Your task to perform on an android device: search for starred emails in the gmail app Image 0: 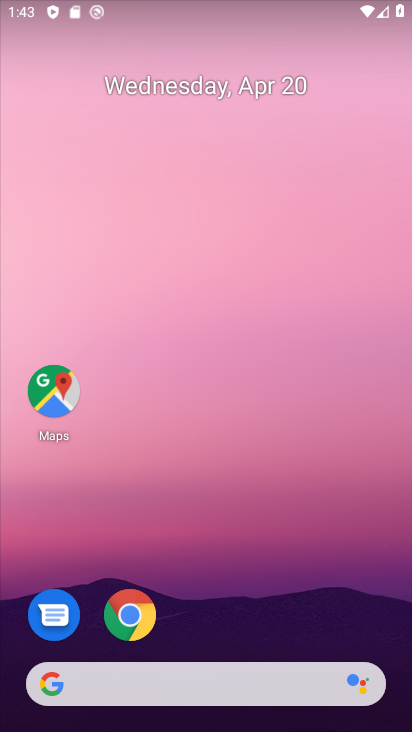
Step 0: drag from (230, 624) to (169, 62)
Your task to perform on an android device: search for starred emails in the gmail app Image 1: 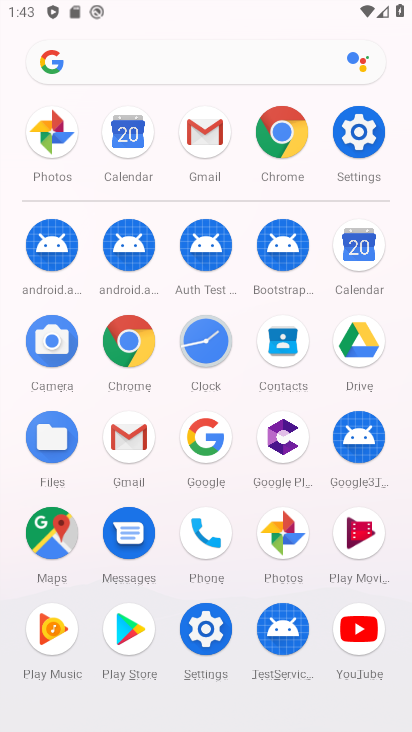
Step 1: click (199, 153)
Your task to perform on an android device: search for starred emails in the gmail app Image 2: 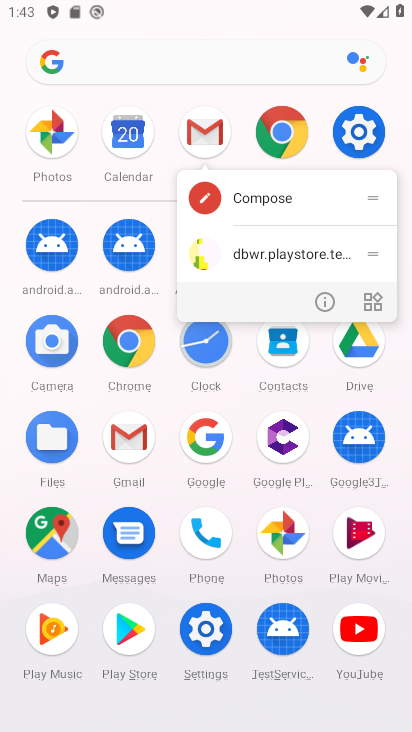
Step 2: click (199, 146)
Your task to perform on an android device: search for starred emails in the gmail app Image 3: 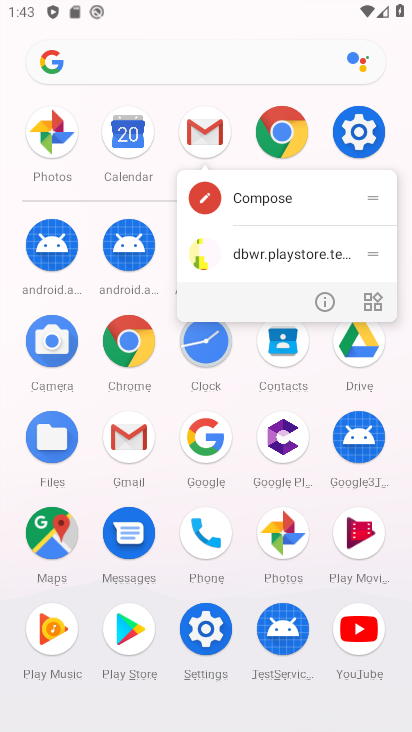
Step 3: click (199, 146)
Your task to perform on an android device: search for starred emails in the gmail app Image 4: 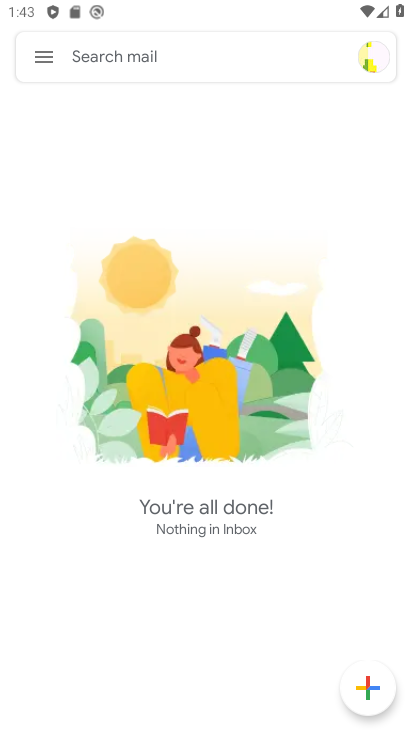
Step 4: click (39, 60)
Your task to perform on an android device: search for starred emails in the gmail app Image 5: 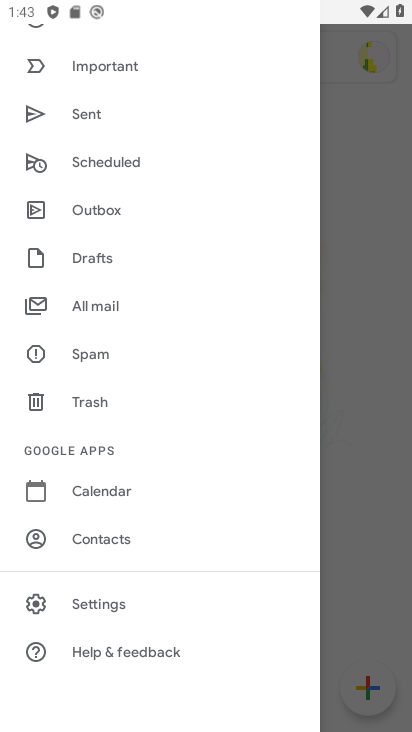
Step 5: drag from (81, 142) to (75, 282)
Your task to perform on an android device: search for starred emails in the gmail app Image 6: 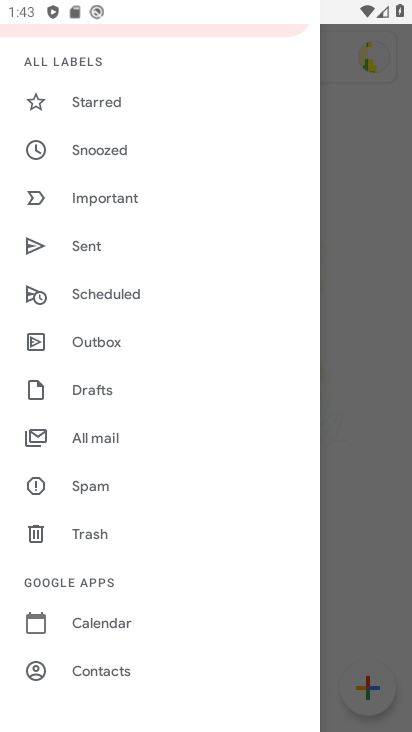
Step 6: click (84, 110)
Your task to perform on an android device: search for starred emails in the gmail app Image 7: 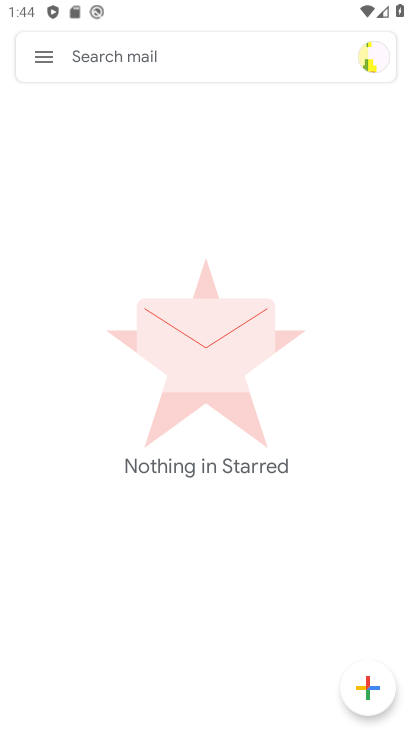
Step 7: task complete